Your task to perform on an android device: Search for rayovac triple a on amazon, select the first entry, and add it to the cart. Image 0: 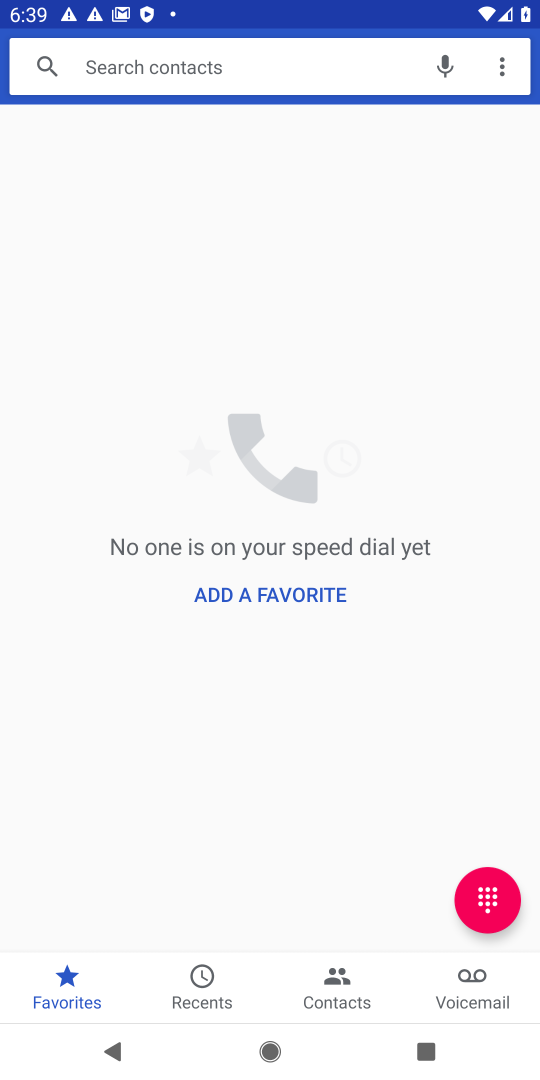
Step 0: press home button
Your task to perform on an android device: Search for rayovac triple a on amazon, select the first entry, and add it to the cart. Image 1: 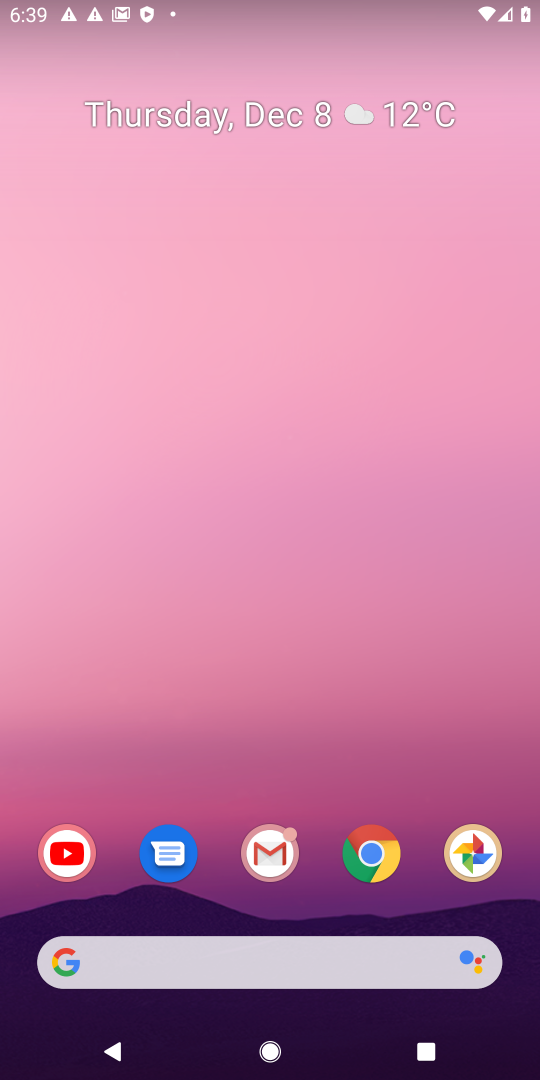
Step 1: click (184, 956)
Your task to perform on an android device: Search for rayovac triple a on amazon, select the first entry, and add it to the cart. Image 2: 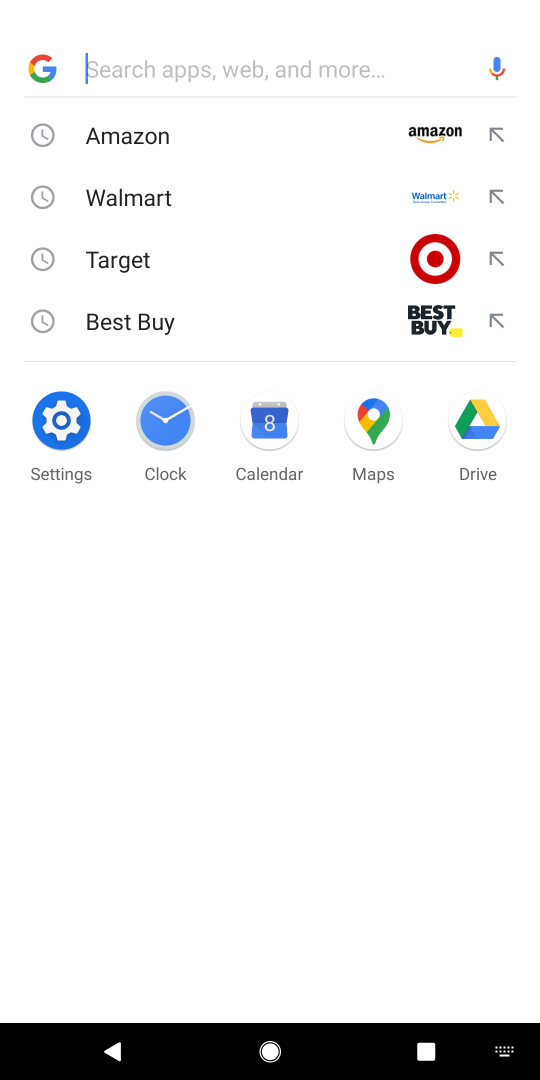
Step 2: click (107, 127)
Your task to perform on an android device: Search for rayovac triple a on amazon, select the first entry, and add it to the cart. Image 3: 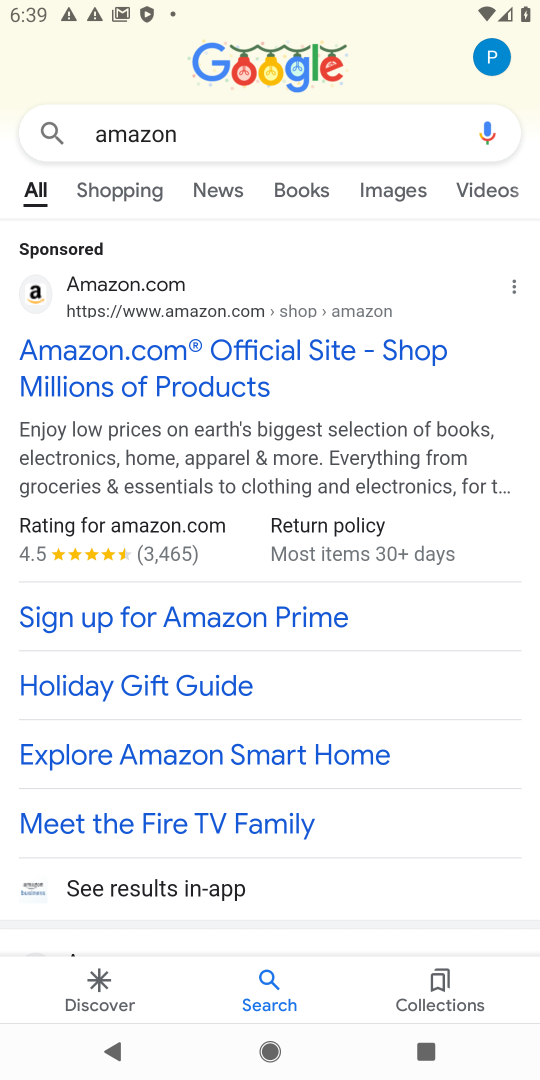
Step 3: click (115, 341)
Your task to perform on an android device: Search for rayovac triple a on amazon, select the first entry, and add it to the cart. Image 4: 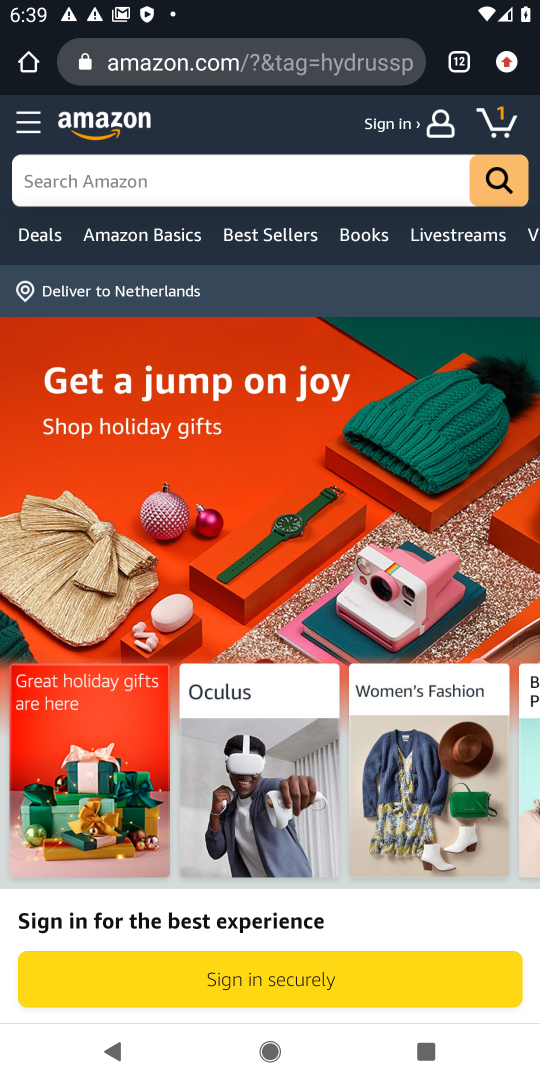
Step 4: click (90, 172)
Your task to perform on an android device: Search for rayovac triple a on amazon, select the first entry, and add it to the cart. Image 5: 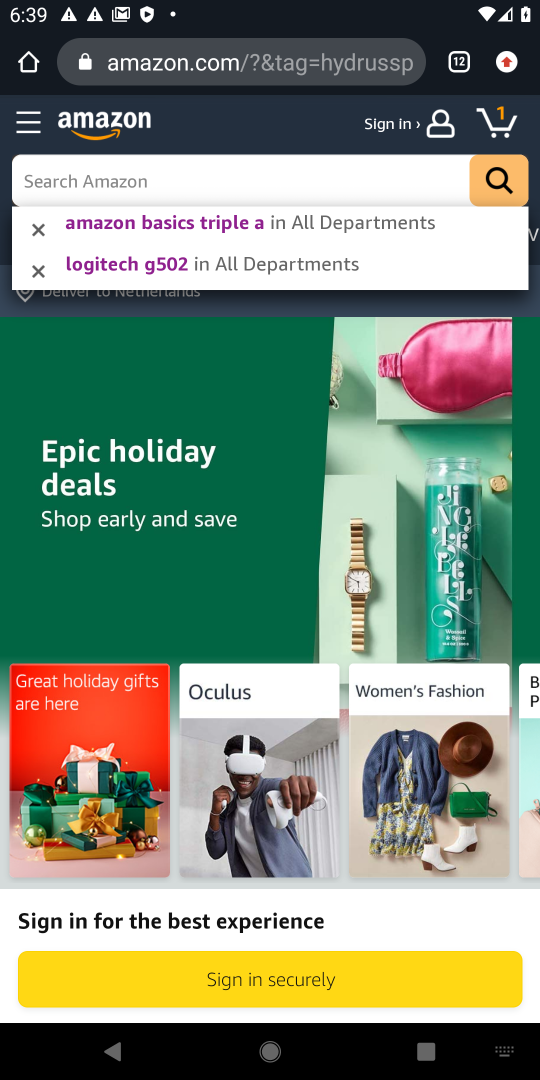
Step 5: type "rayovac triple a"
Your task to perform on an android device: Search for rayovac triple a on amazon, select the first entry, and add it to the cart. Image 6: 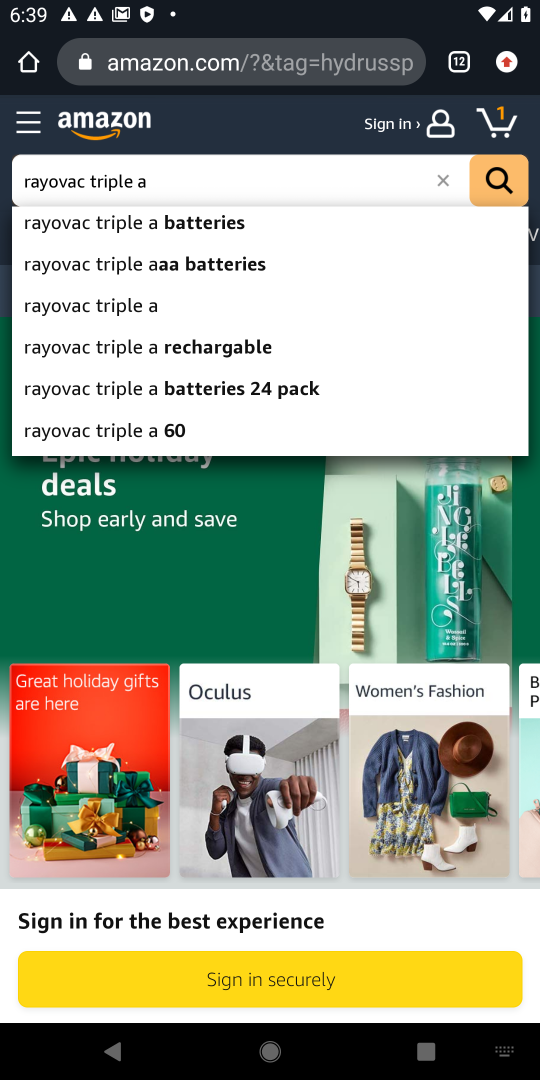
Step 6: click (112, 300)
Your task to perform on an android device: Search for rayovac triple a on amazon, select the first entry, and add it to the cart. Image 7: 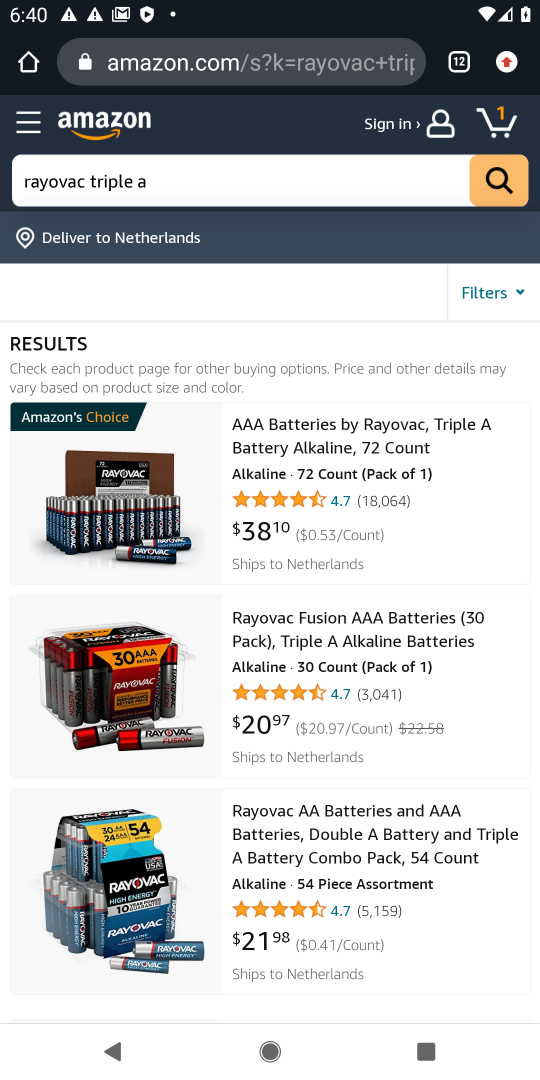
Step 7: click (318, 450)
Your task to perform on an android device: Search for rayovac triple a on amazon, select the first entry, and add it to the cart. Image 8: 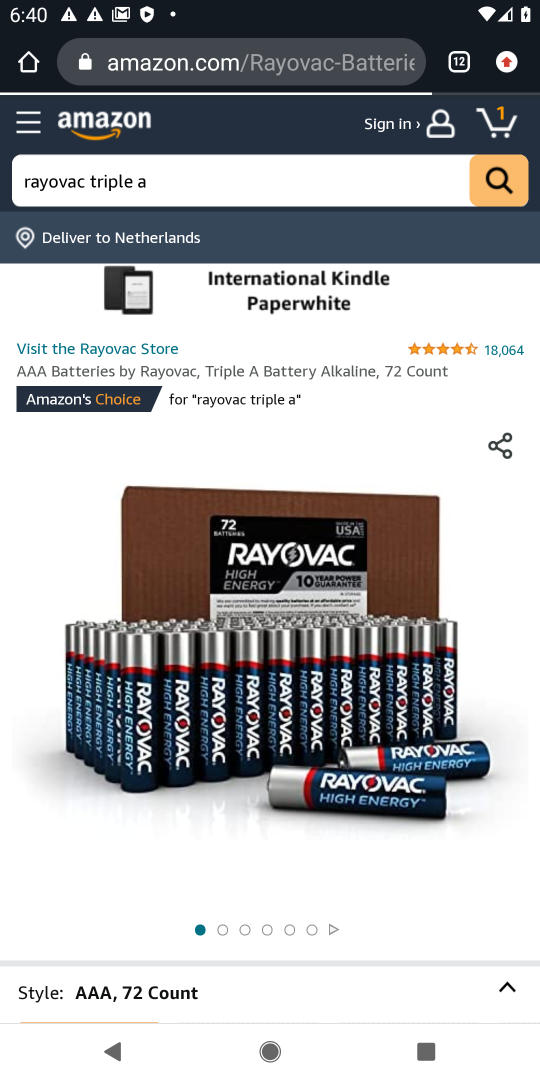
Step 8: drag from (259, 840) to (248, 555)
Your task to perform on an android device: Search for rayovac triple a on amazon, select the first entry, and add it to the cart. Image 9: 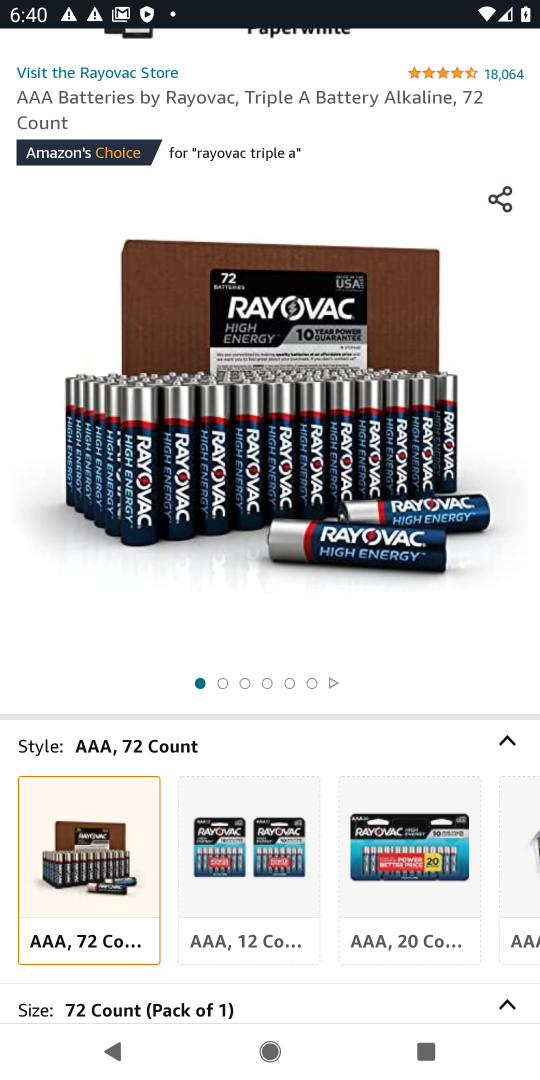
Step 9: drag from (327, 642) to (297, 379)
Your task to perform on an android device: Search for rayovac triple a on amazon, select the first entry, and add it to the cart. Image 10: 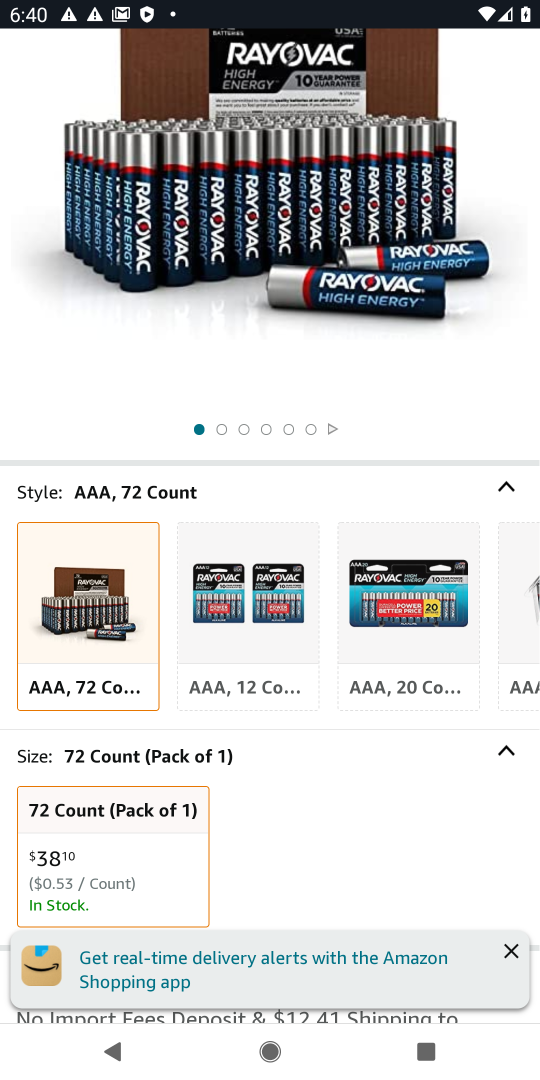
Step 10: drag from (282, 849) to (264, 639)
Your task to perform on an android device: Search for rayovac triple a on amazon, select the first entry, and add it to the cart. Image 11: 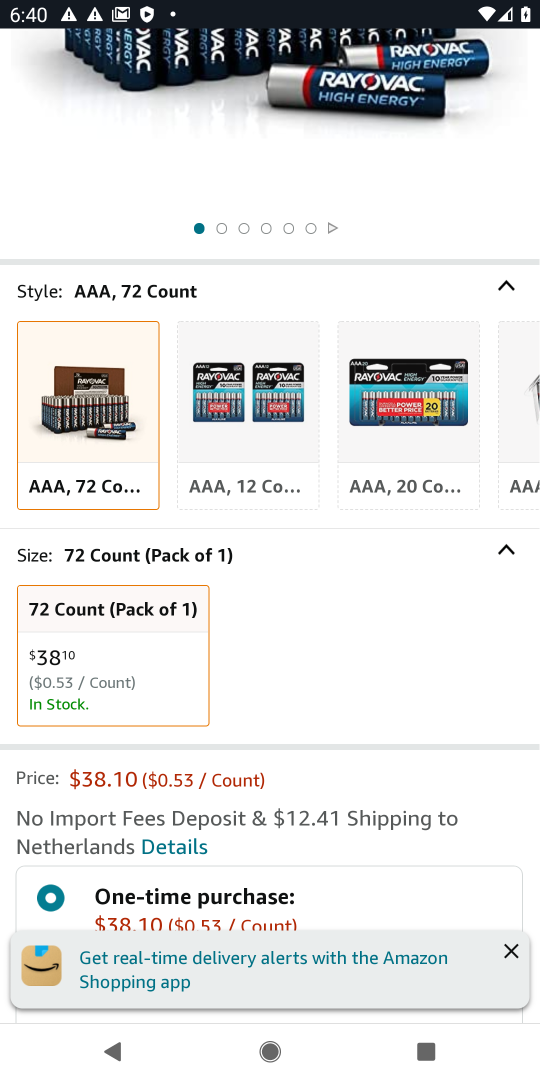
Step 11: drag from (342, 672) to (290, 446)
Your task to perform on an android device: Search for rayovac triple a on amazon, select the first entry, and add it to the cart. Image 12: 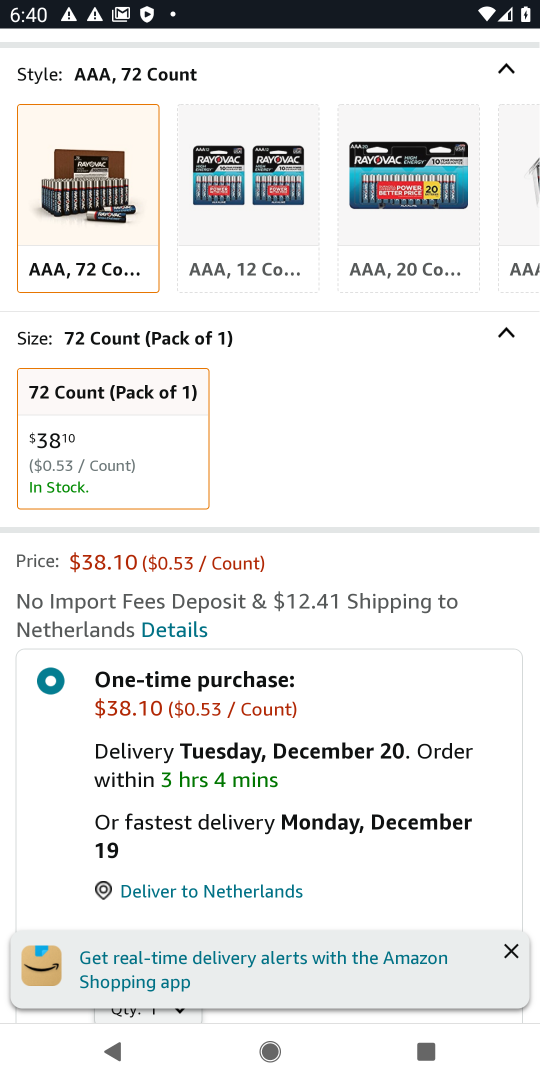
Step 12: drag from (330, 442) to (318, 226)
Your task to perform on an android device: Search for rayovac triple a on amazon, select the first entry, and add it to the cart. Image 13: 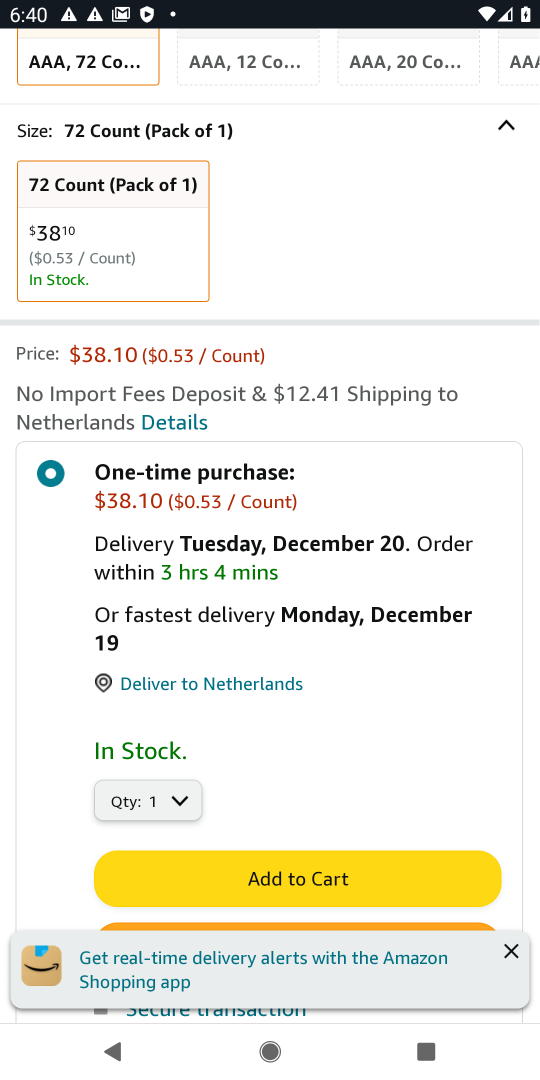
Step 13: click (264, 872)
Your task to perform on an android device: Search for rayovac triple a on amazon, select the first entry, and add it to the cart. Image 14: 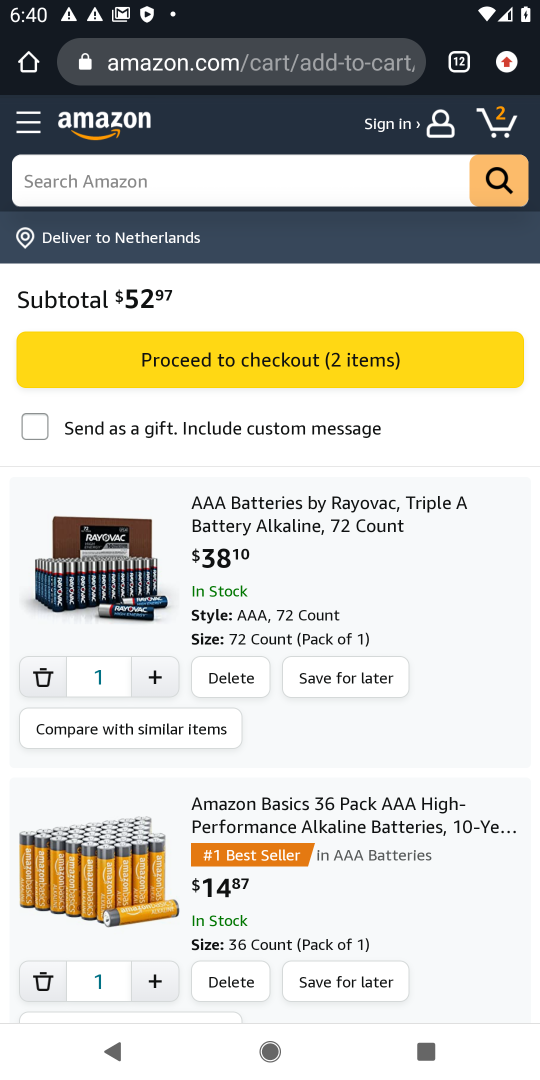
Step 14: task complete